Your task to perform on an android device: Open calendar and show me the second week of next month Image 0: 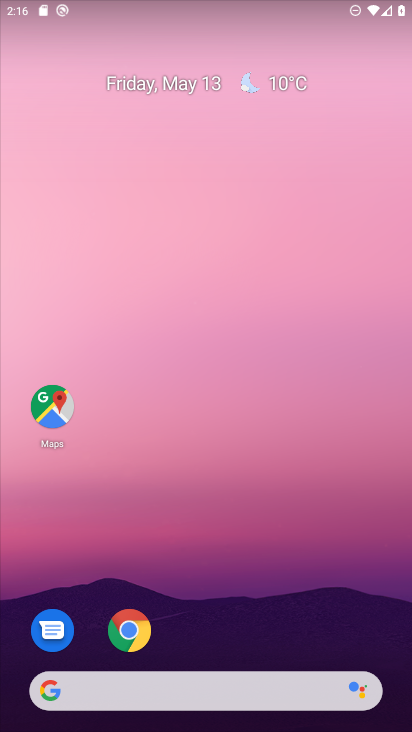
Step 0: drag from (215, 656) to (226, 73)
Your task to perform on an android device: Open calendar and show me the second week of next month Image 1: 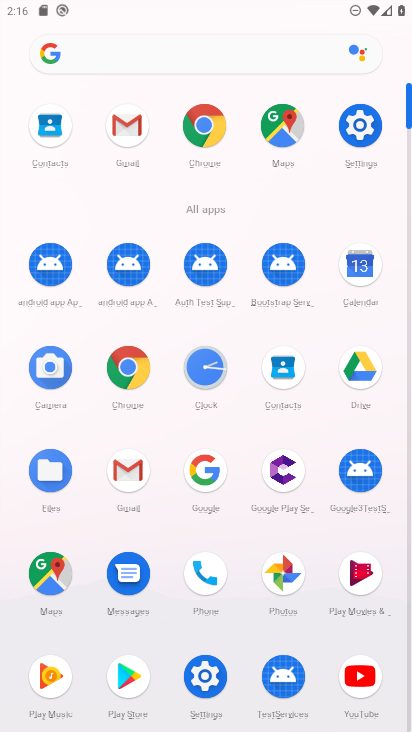
Step 1: click (361, 258)
Your task to perform on an android device: Open calendar and show me the second week of next month Image 2: 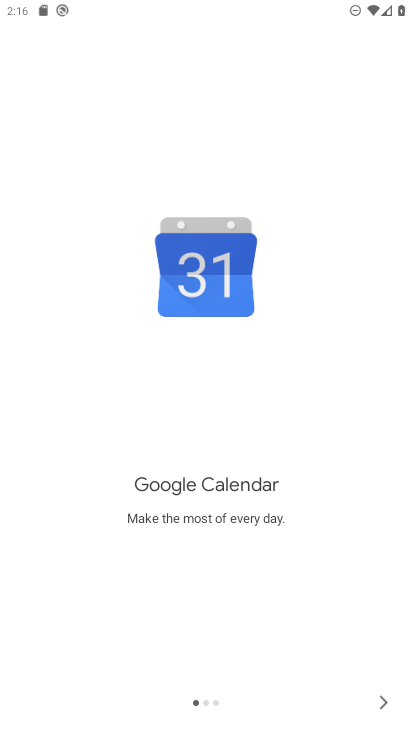
Step 2: click (381, 697)
Your task to perform on an android device: Open calendar and show me the second week of next month Image 3: 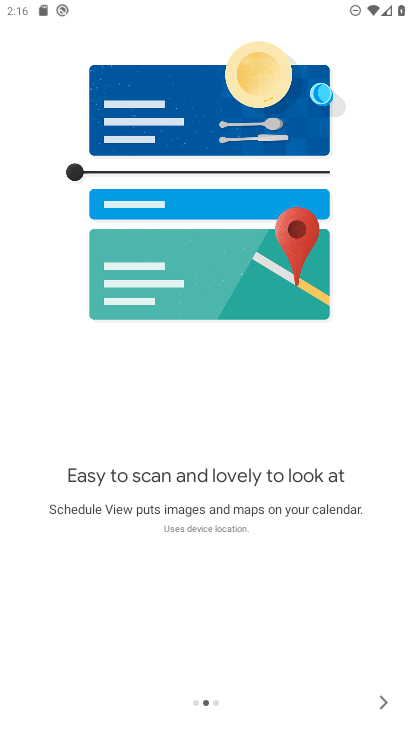
Step 3: click (379, 690)
Your task to perform on an android device: Open calendar and show me the second week of next month Image 4: 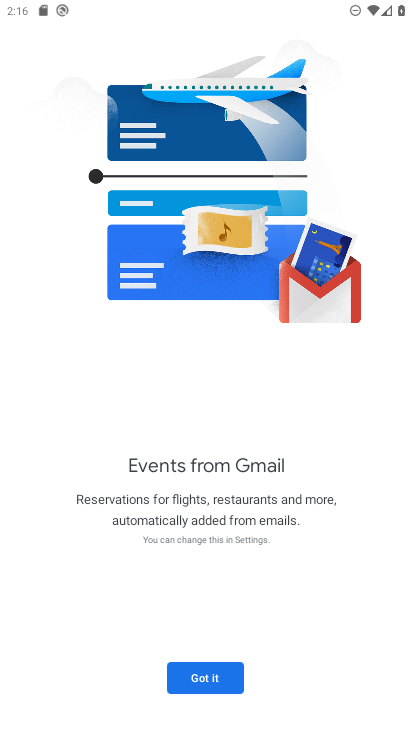
Step 4: click (203, 674)
Your task to perform on an android device: Open calendar and show me the second week of next month Image 5: 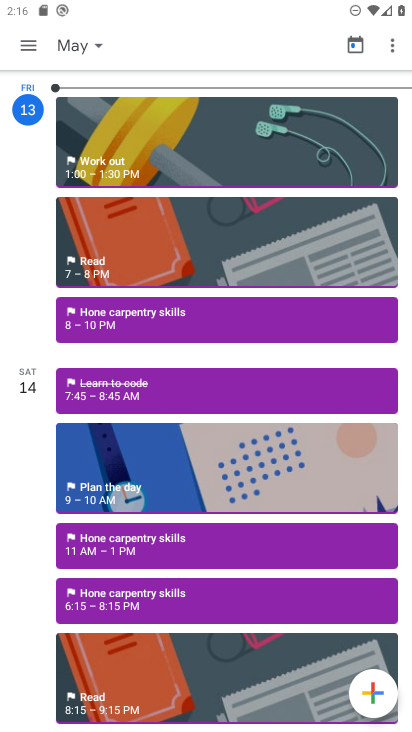
Step 5: click (94, 44)
Your task to perform on an android device: Open calendar and show me the second week of next month Image 6: 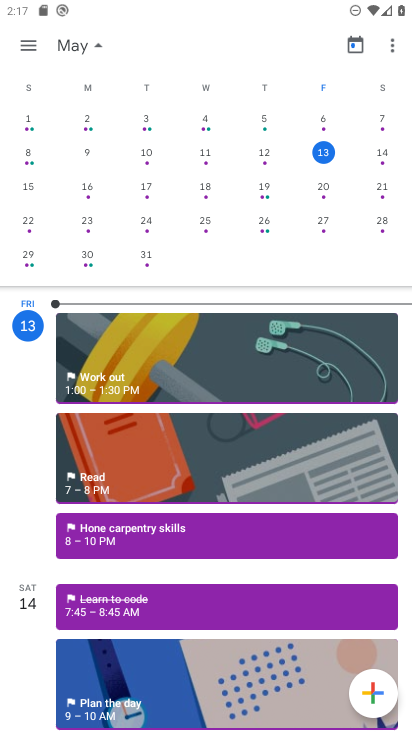
Step 6: drag from (371, 194) to (10, 151)
Your task to perform on an android device: Open calendar and show me the second week of next month Image 7: 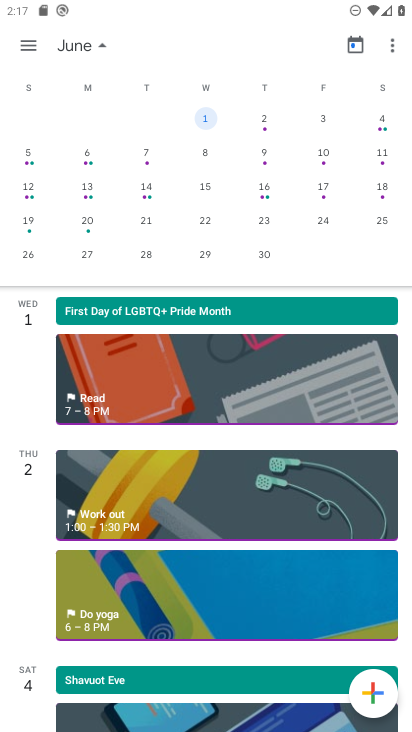
Step 7: click (24, 155)
Your task to perform on an android device: Open calendar and show me the second week of next month Image 8: 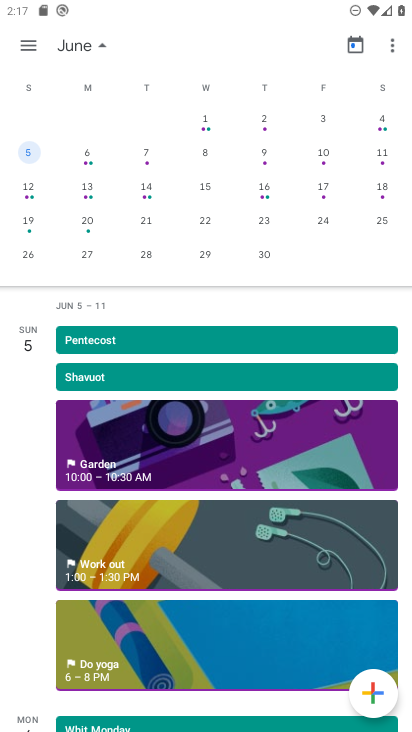
Step 8: click (23, 389)
Your task to perform on an android device: Open calendar and show me the second week of next month Image 9: 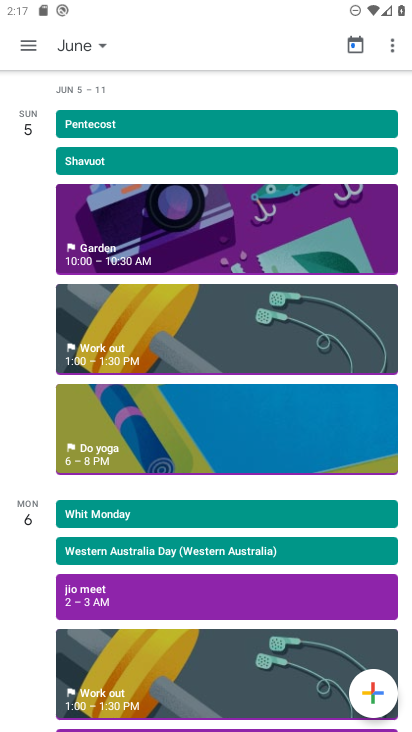
Step 9: task complete